Your task to perform on an android device: turn on priority inbox in the gmail app Image 0: 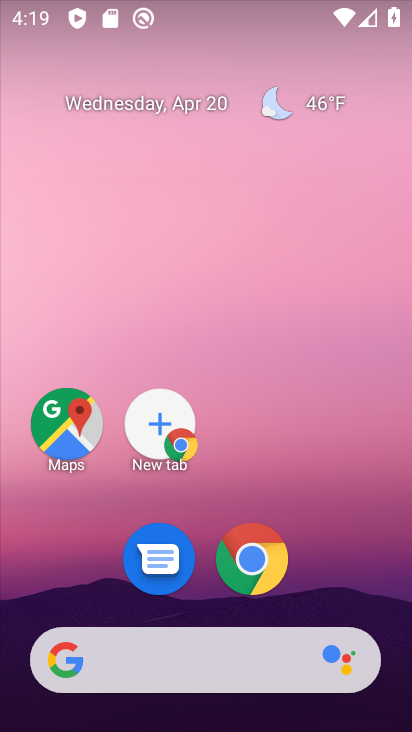
Step 0: drag from (365, 555) to (326, 187)
Your task to perform on an android device: turn on priority inbox in the gmail app Image 1: 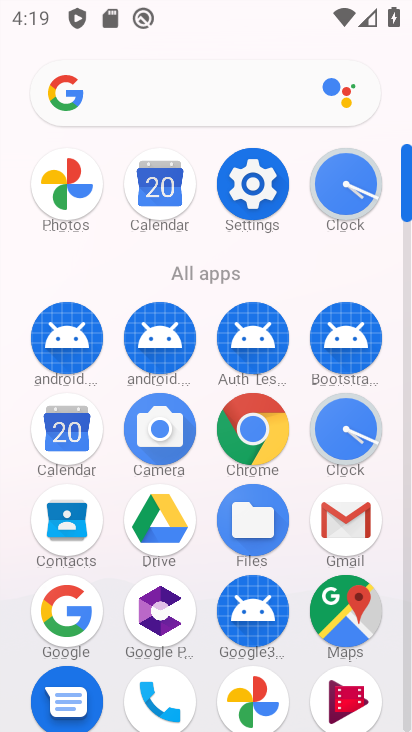
Step 1: click (346, 524)
Your task to perform on an android device: turn on priority inbox in the gmail app Image 2: 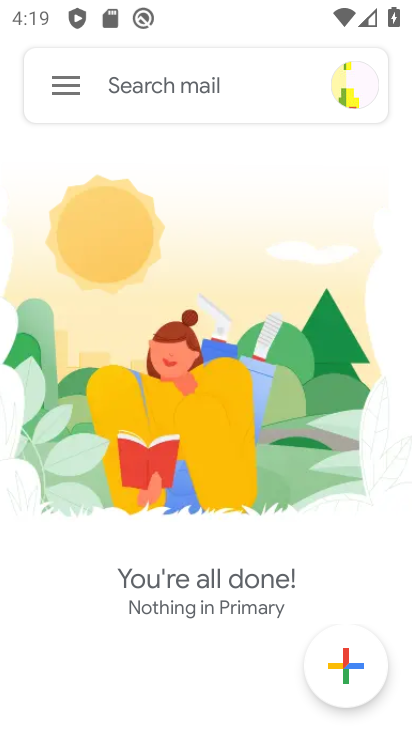
Step 2: click (66, 102)
Your task to perform on an android device: turn on priority inbox in the gmail app Image 3: 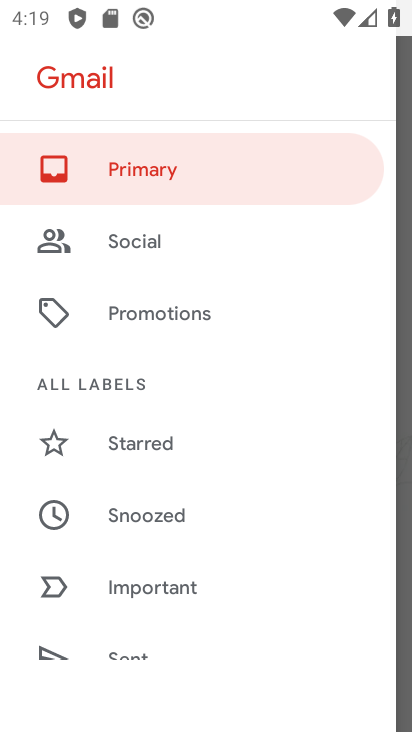
Step 3: drag from (214, 605) to (224, 210)
Your task to perform on an android device: turn on priority inbox in the gmail app Image 4: 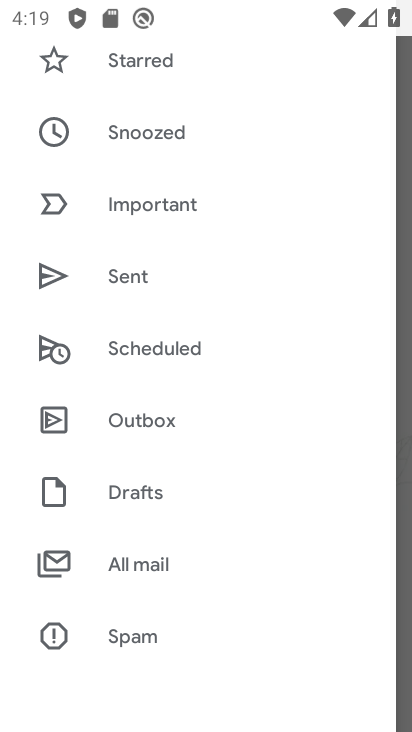
Step 4: drag from (216, 621) to (267, 312)
Your task to perform on an android device: turn on priority inbox in the gmail app Image 5: 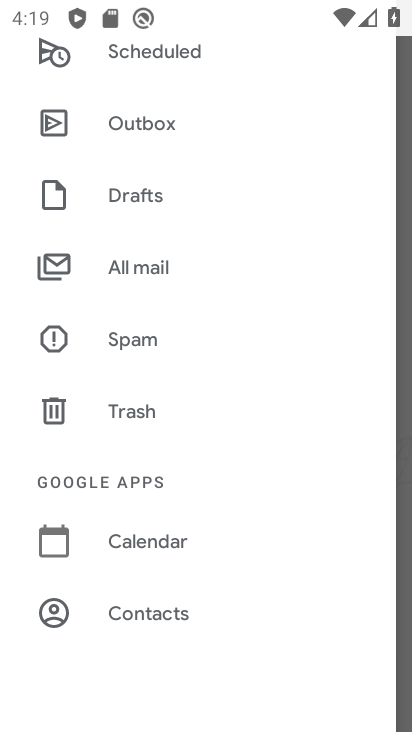
Step 5: drag from (185, 578) to (240, 134)
Your task to perform on an android device: turn on priority inbox in the gmail app Image 6: 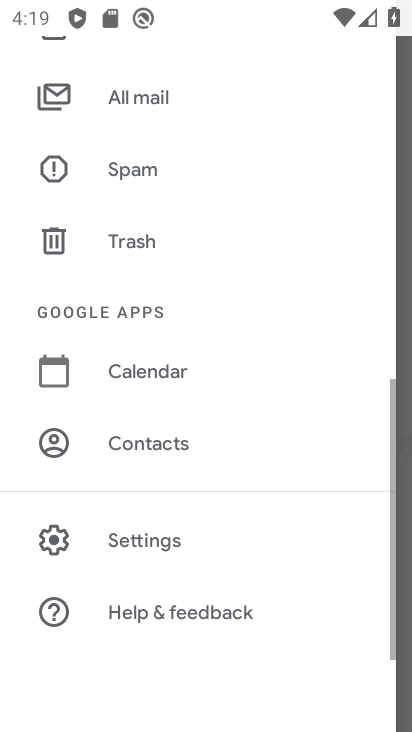
Step 6: click (182, 533)
Your task to perform on an android device: turn on priority inbox in the gmail app Image 7: 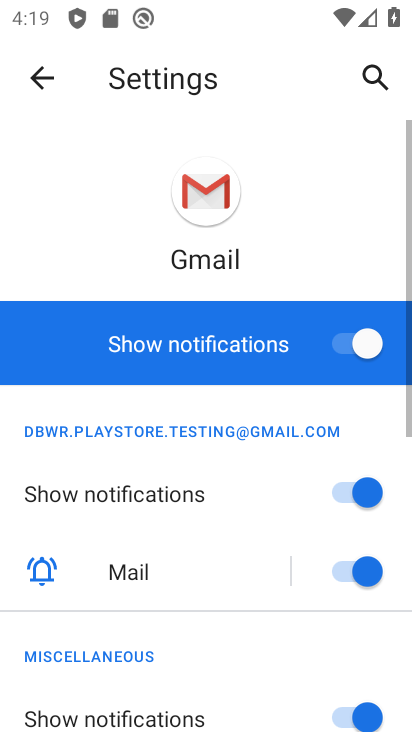
Step 7: drag from (209, 551) to (239, 205)
Your task to perform on an android device: turn on priority inbox in the gmail app Image 8: 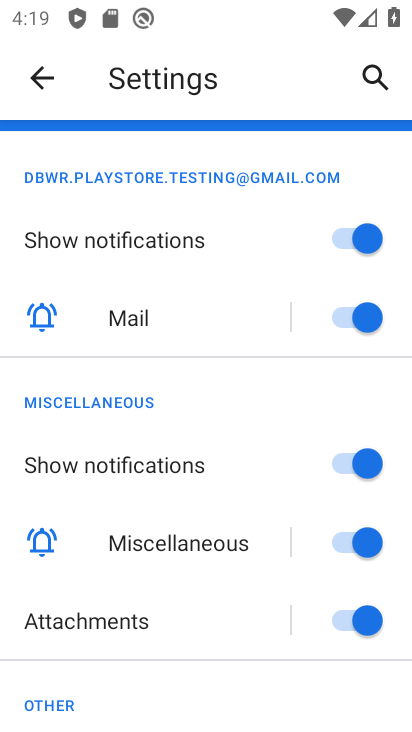
Step 8: drag from (192, 569) to (219, 322)
Your task to perform on an android device: turn on priority inbox in the gmail app Image 9: 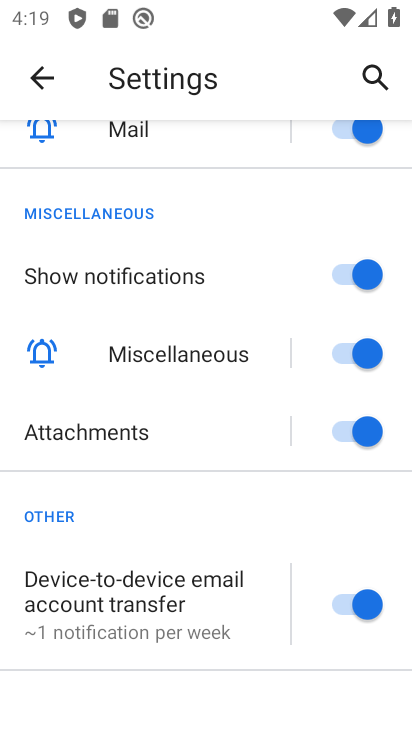
Step 9: drag from (150, 658) to (204, 213)
Your task to perform on an android device: turn on priority inbox in the gmail app Image 10: 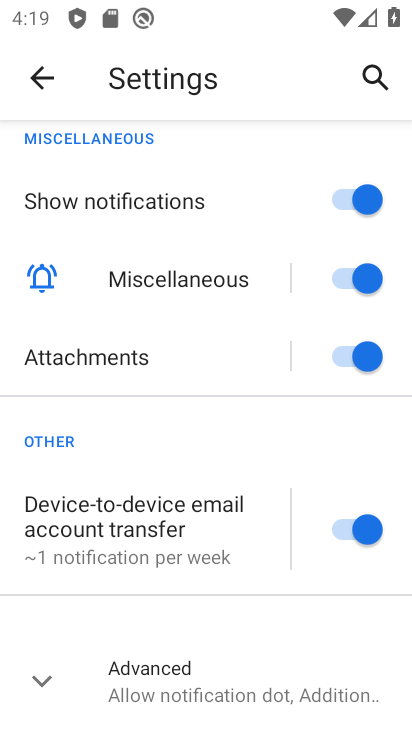
Step 10: drag from (187, 320) to (177, 705)
Your task to perform on an android device: turn on priority inbox in the gmail app Image 11: 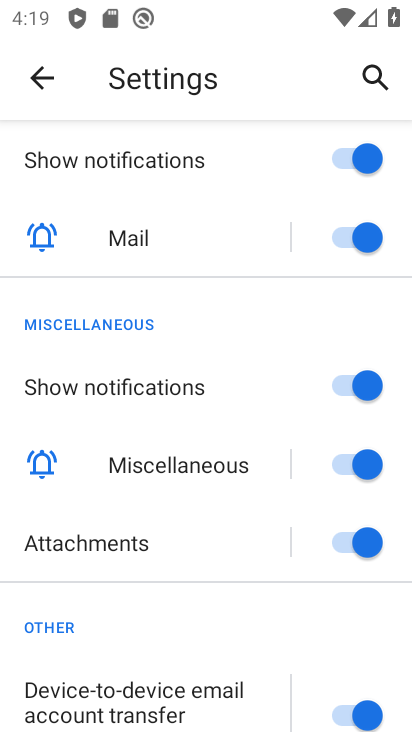
Step 11: click (46, 94)
Your task to perform on an android device: turn on priority inbox in the gmail app Image 12: 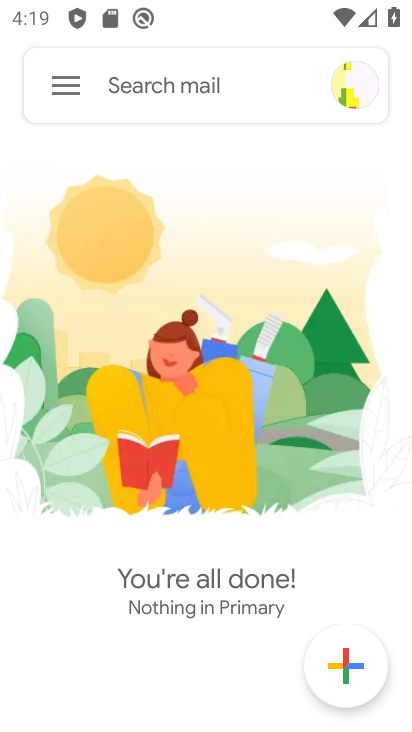
Step 12: click (64, 104)
Your task to perform on an android device: turn on priority inbox in the gmail app Image 13: 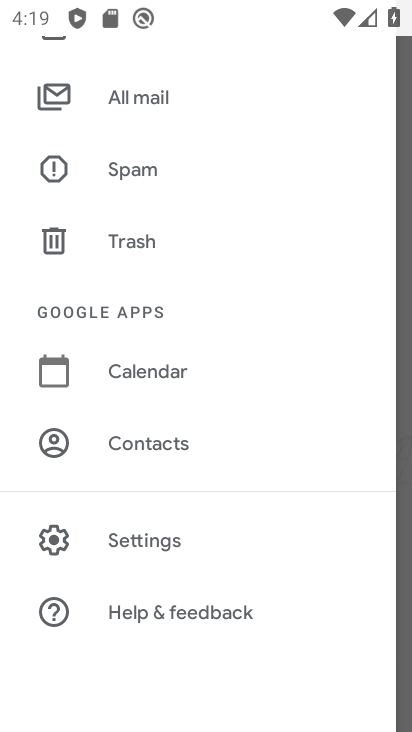
Step 13: click (164, 532)
Your task to perform on an android device: turn on priority inbox in the gmail app Image 14: 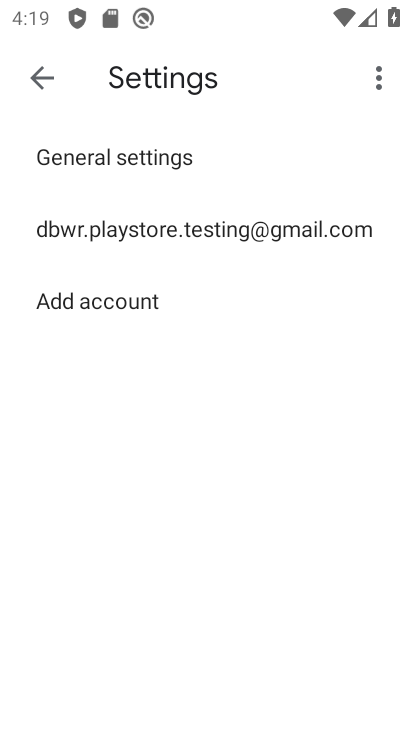
Step 14: click (189, 222)
Your task to perform on an android device: turn on priority inbox in the gmail app Image 15: 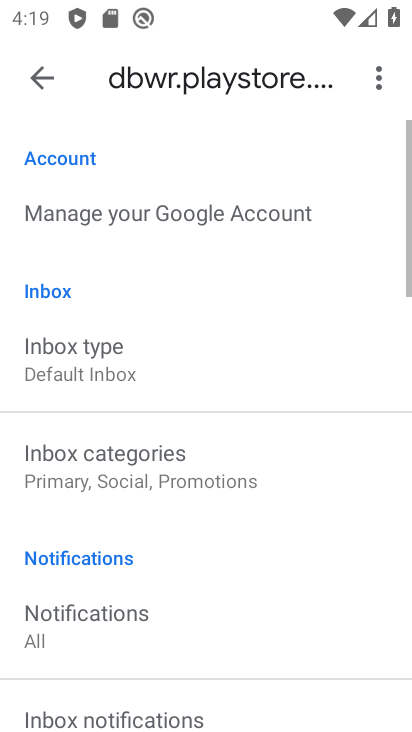
Step 15: drag from (208, 591) to (210, 521)
Your task to perform on an android device: turn on priority inbox in the gmail app Image 16: 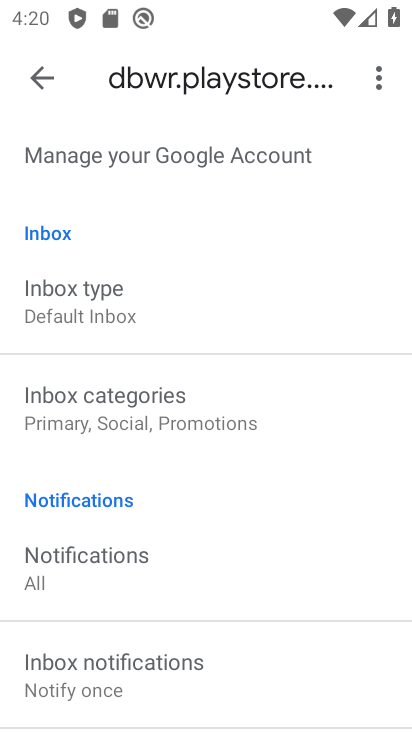
Step 16: click (153, 290)
Your task to perform on an android device: turn on priority inbox in the gmail app Image 17: 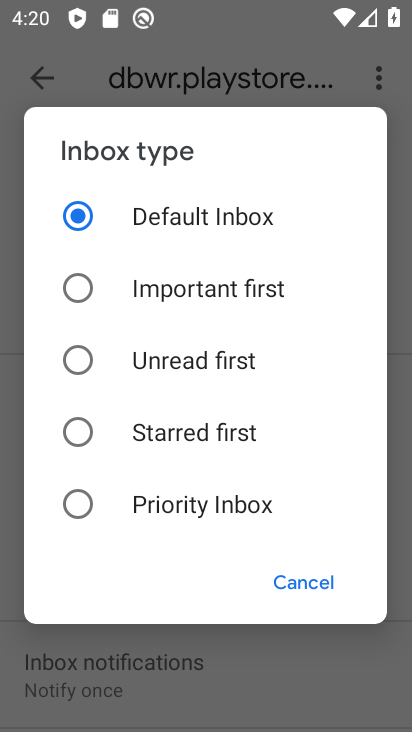
Step 17: click (176, 497)
Your task to perform on an android device: turn on priority inbox in the gmail app Image 18: 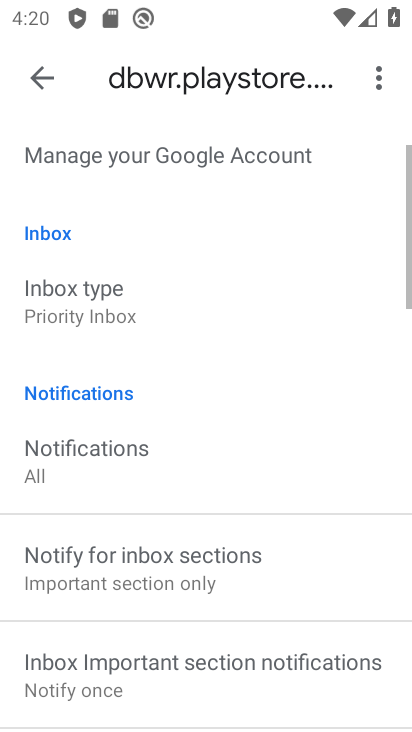
Step 18: task complete